Your task to perform on an android device: Play the last video I watched on Youtube Image 0: 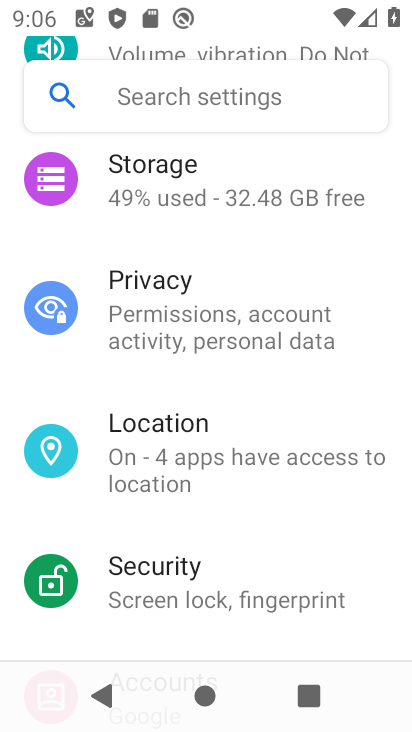
Step 0: press back button
Your task to perform on an android device: Play the last video I watched on Youtube Image 1: 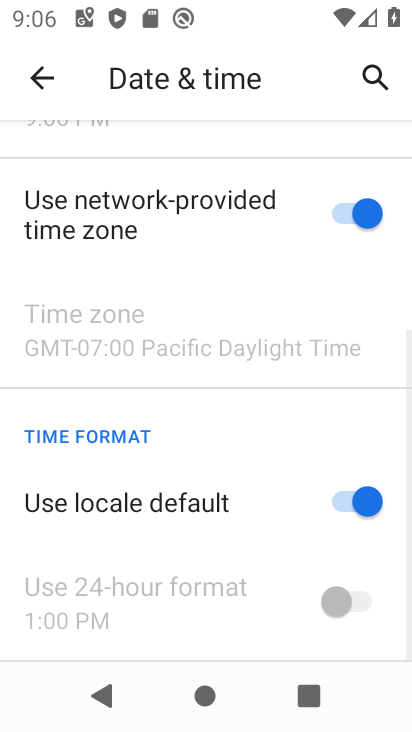
Step 1: press back button
Your task to perform on an android device: Play the last video I watched on Youtube Image 2: 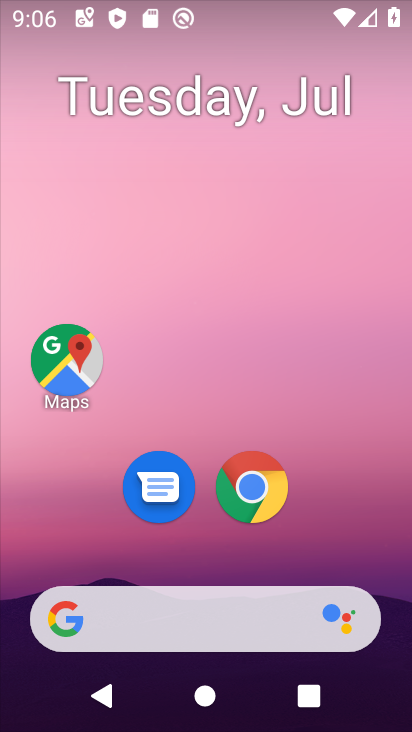
Step 2: drag from (147, 525) to (253, 5)
Your task to perform on an android device: Play the last video I watched on Youtube Image 3: 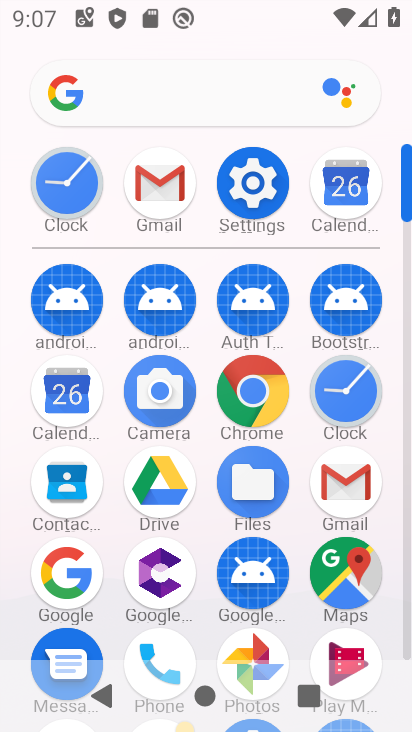
Step 3: drag from (170, 574) to (263, 0)
Your task to perform on an android device: Play the last video I watched on Youtube Image 4: 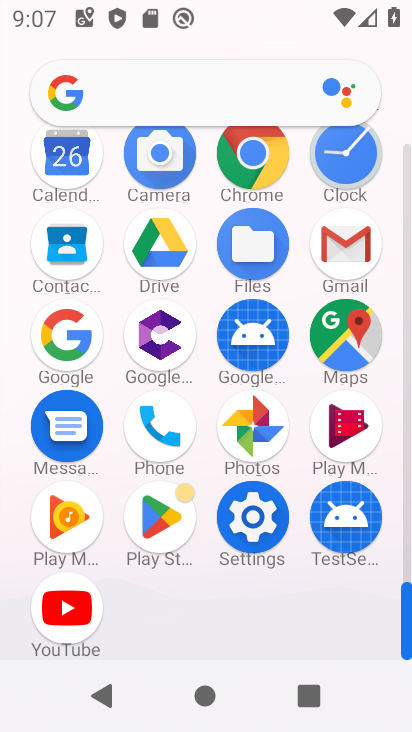
Step 4: click (67, 608)
Your task to perform on an android device: Play the last video I watched on Youtube Image 5: 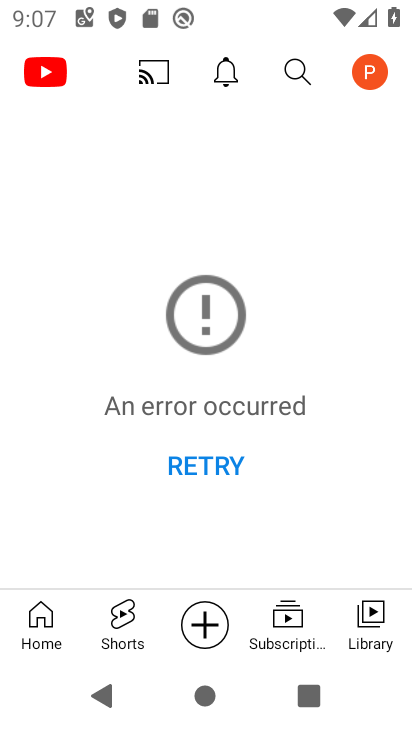
Step 5: click (353, 623)
Your task to perform on an android device: Play the last video I watched on Youtube Image 6: 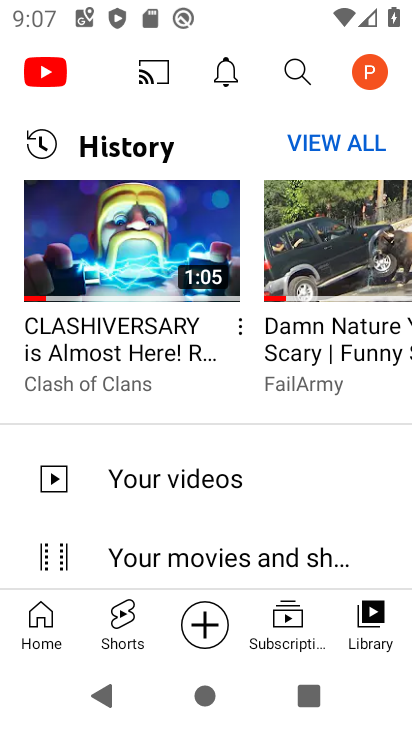
Step 6: click (88, 238)
Your task to perform on an android device: Play the last video I watched on Youtube Image 7: 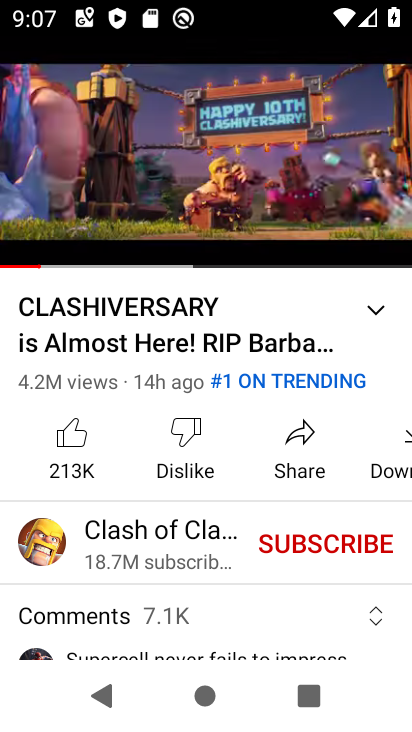
Step 7: click (219, 143)
Your task to perform on an android device: Play the last video I watched on Youtube Image 8: 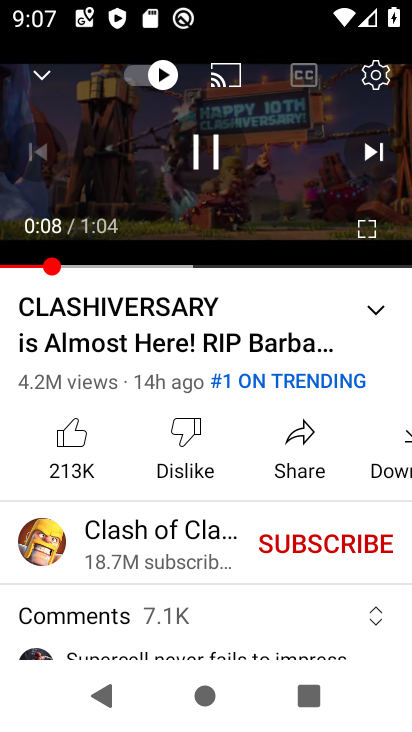
Step 8: click (204, 138)
Your task to perform on an android device: Play the last video I watched on Youtube Image 9: 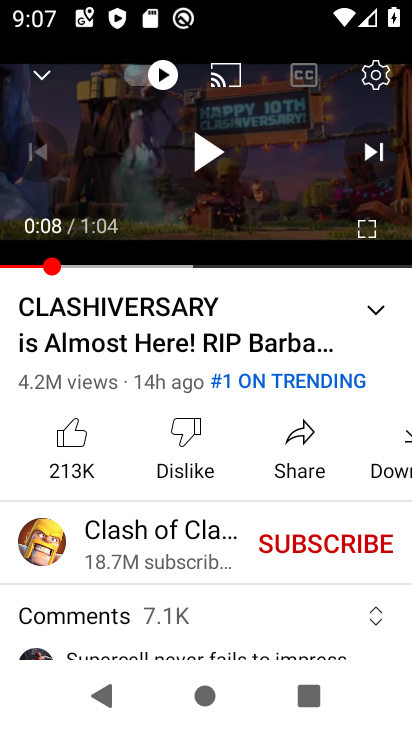
Step 9: task complete